Your task to perform on an android device: Open Reddit.com Image 0: 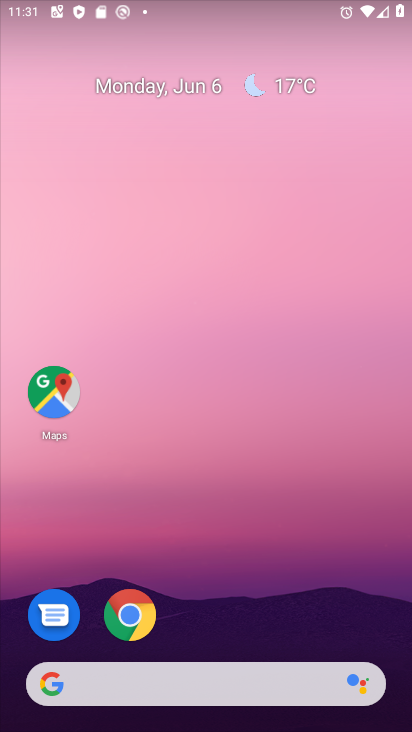
Step 0: press home button
Your task to perform on an android device: Open Reddit.com Image 1: 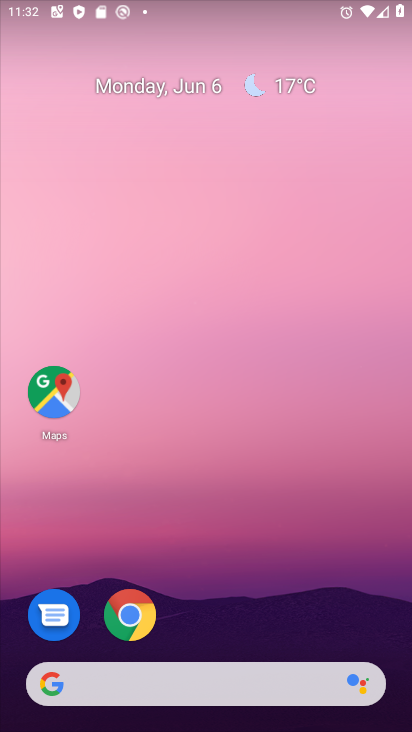
Step 1: click (129, 609)
Your task to perform on an android device: Open Reddit.com Image 2: 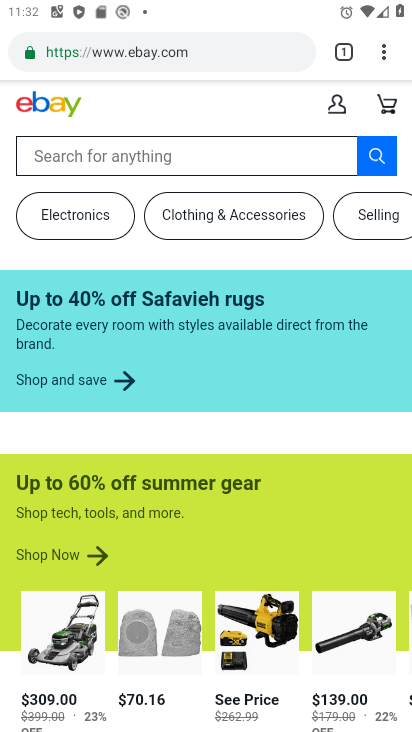
Step 2: click (341, 48)
Your task to perform on an android device: Open Reddit.com Image 3: 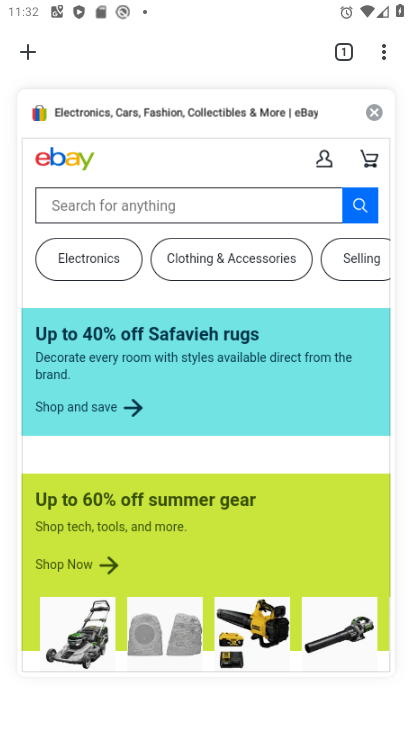
Step 3: click (373, 105)
Your task to perform on an android device: Open Reddit.com Image 4: 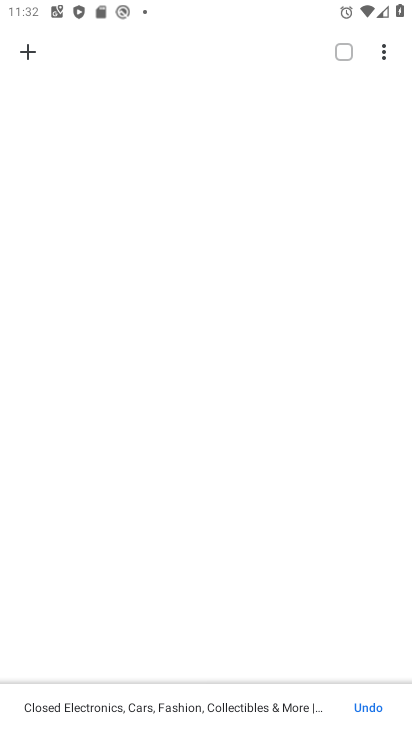
Step 4: click (32, 54)
Your task to perform on an android device: Open Reddit.com Image 5: 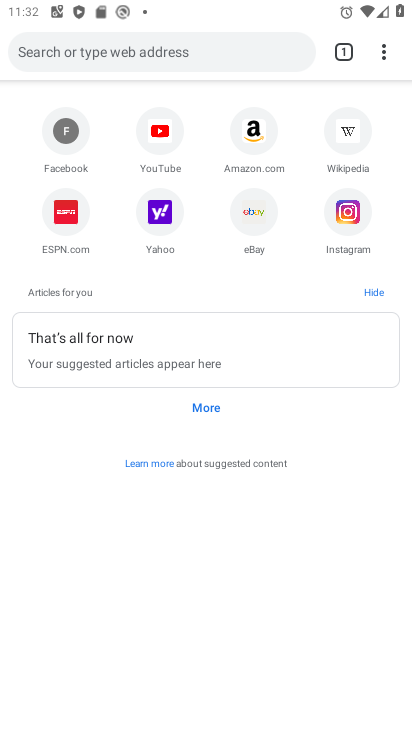
Step 5: click (132, 62)
Your task to perform on an android device: Open Reddit.com Image 6: 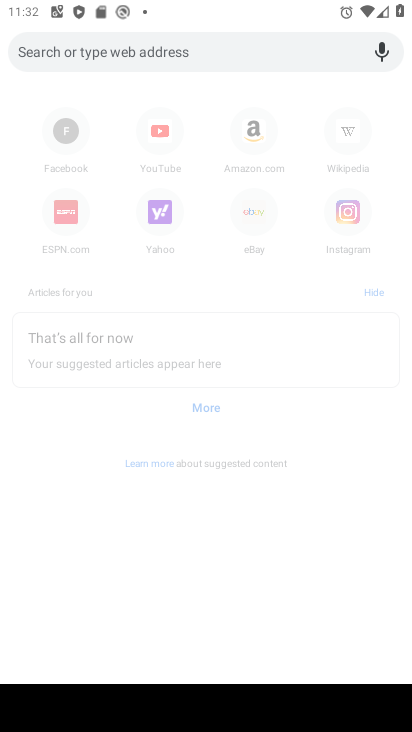
Step 6: type "reddit"
Your task to perform on an android device: Open Reddit.com Image 7: 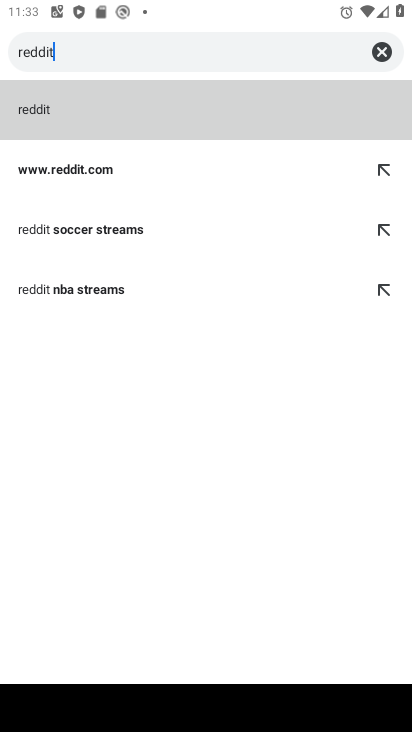
Step 7: click (113, 162)
Your task to perform on an android device: Open Reddit.com Image 8: 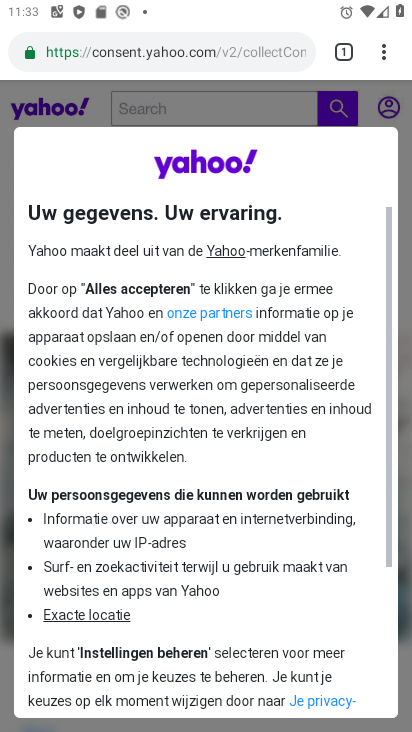
Step 8: drag from (206, 623) to (243, 185)
Your task to perform on an android device: Open Reddit.com Image 9: 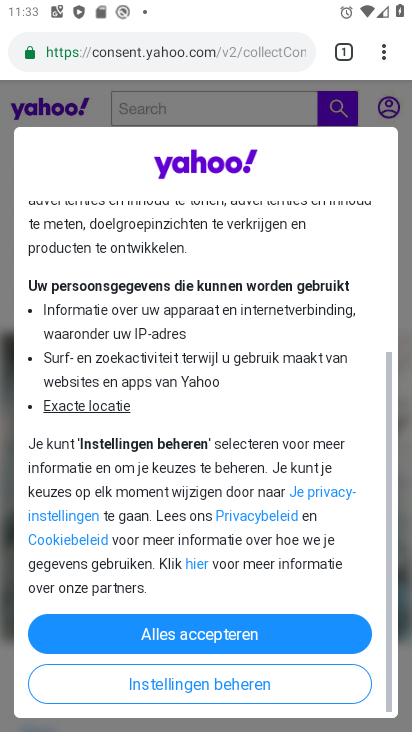
Step 9: click (217, 632)
Your task to perform on an android device: Open Reddit.com Image 10: 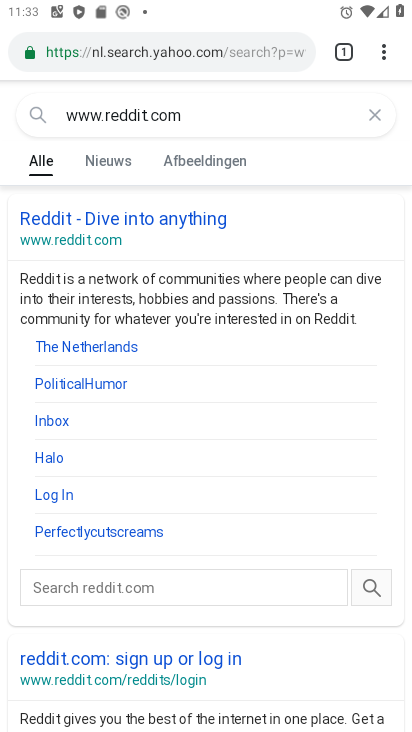
Step 10: click (125, 221)
Your task to perform on an android device: Open Reddit.com Image 11: 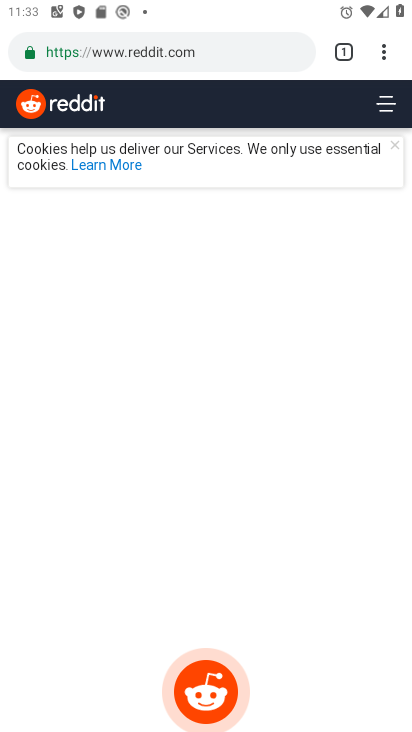
Step 11: task complete